Your task to perform on an android device: turn on showing notifications on the lock screen Image 0: 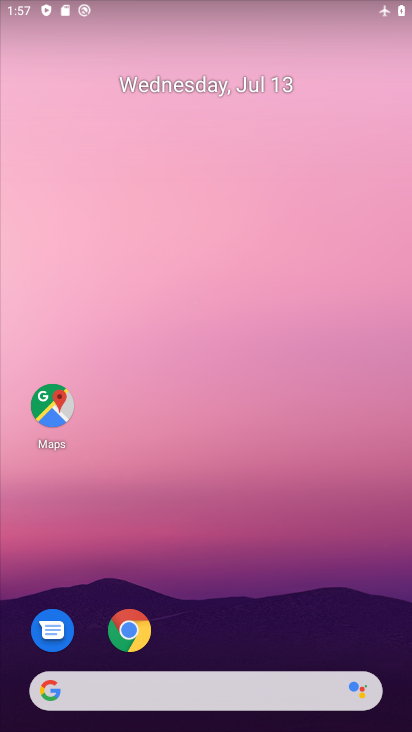
Step 0: drag from (245, 259) to (50, 48)
Your task to perform on an android device: turn on showing notifications on the lock screen Image 1: 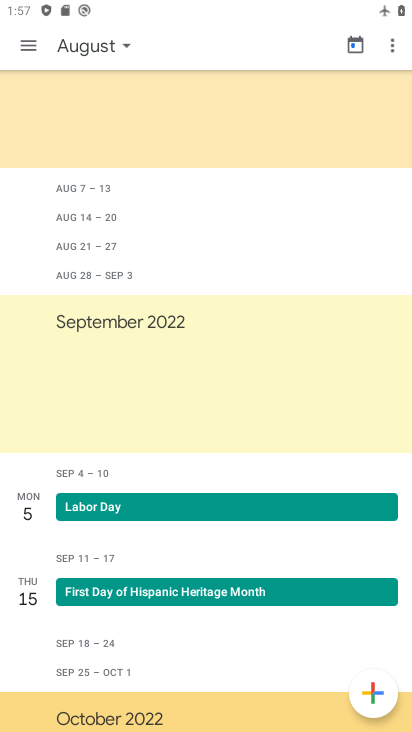
Step 1: press back button
Your task to perform on an android device: turn on showing notifications on the lock screen Image 2: 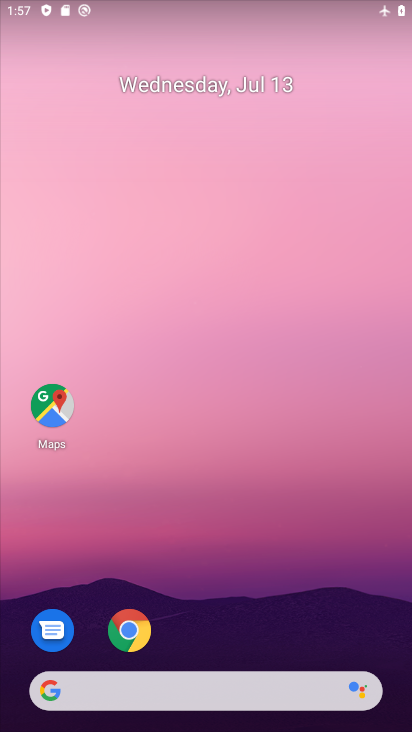
Step 2: drag from (288, 660) to (186, 23)
Your task to perform on an android device: turn on showing notifications on the lock screen Image 3: 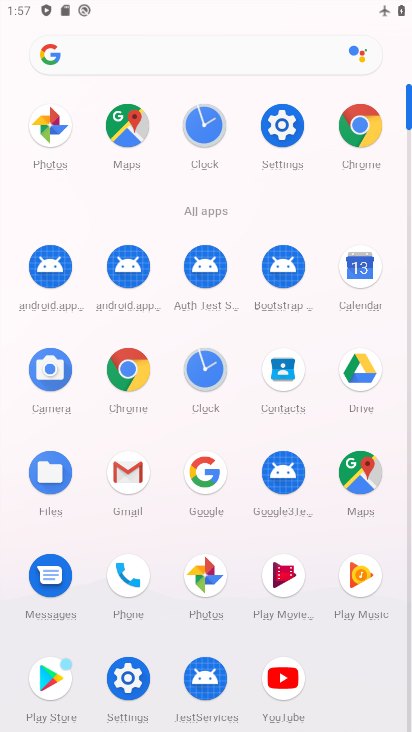
Step 3: drag from (235, 460) to (108, 98)
Your task to perform on an android device: turn on showing notifications on the lock screen Image 4: 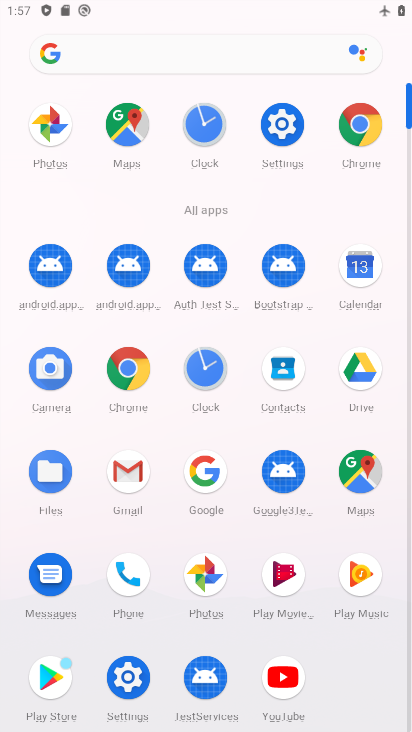
Step 4: click (284, 123)
Your task to perform on an android device: turn on showing notifications on the lock screen Image 5: 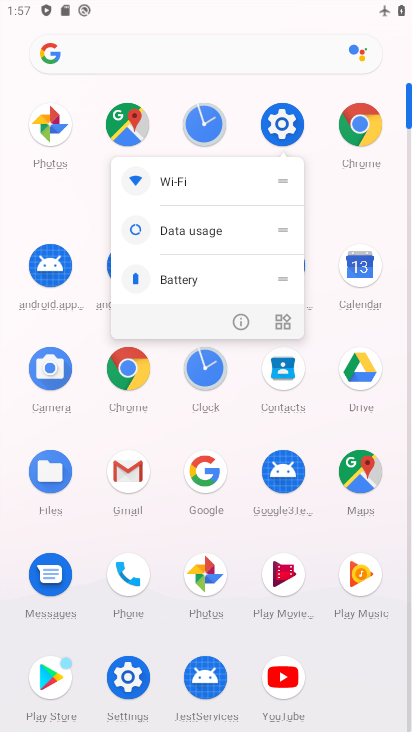
Step 5: click (276, 120)
Your task to perform on an android device: turn on showing notifications on the lock screen Image 6: 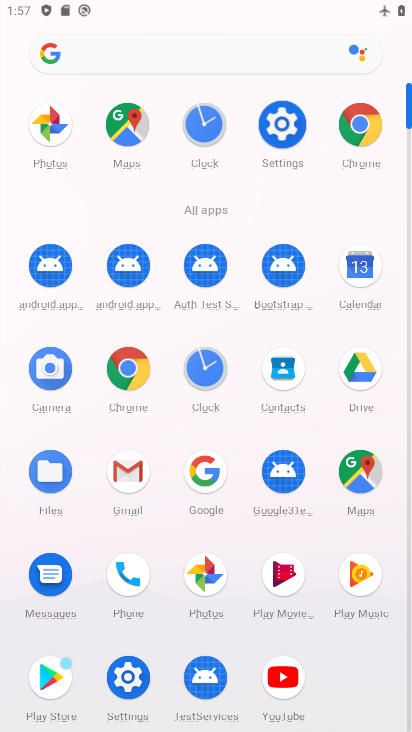
Step 6: click (277, 119)
Your task to perform on an android device: turn on showing notifications on the lock screen Image 7: 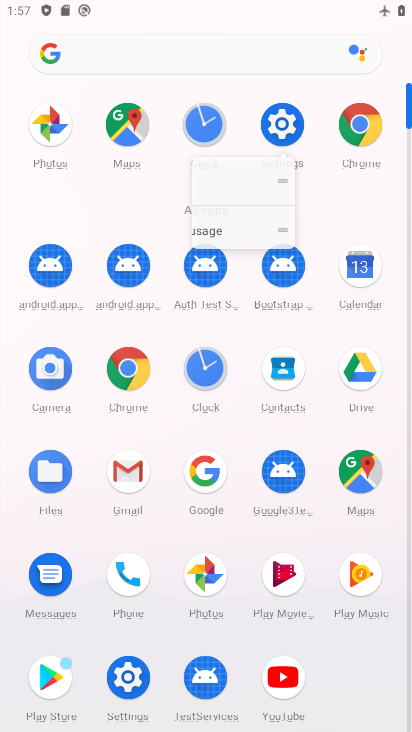
Step 7: click (277, 119)
Your task to perform on an android device: turn on showing notifications on the lock screen Image 8: 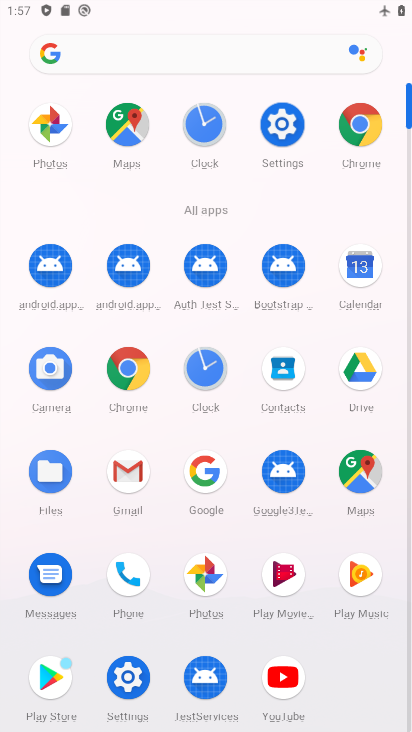
Step 8: click (277, 119)
Your task to perform on an android device: turn on showing notifications on the lock screen Image 9: 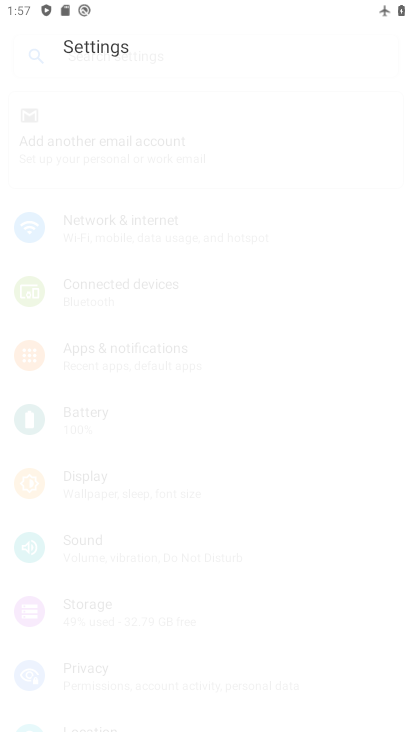
Step 9: click (279, 123)
Your task to perform on an android device: turn on showing notifications on the lock screen Image 10: 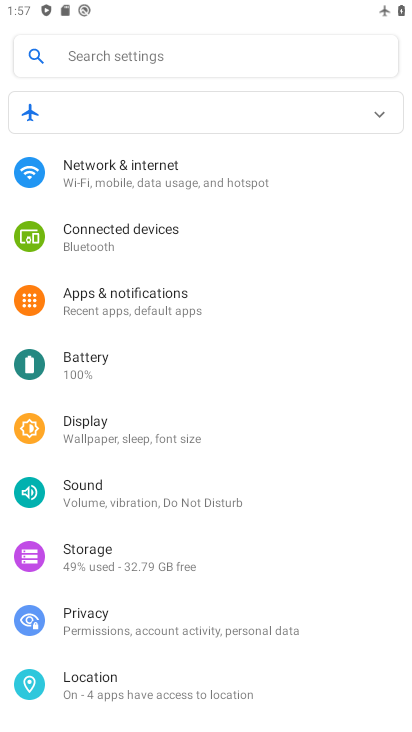
Step 10: click (95, 228)
Your task to perform on an android device: turn on showing notifications on the lock screen Image 11: 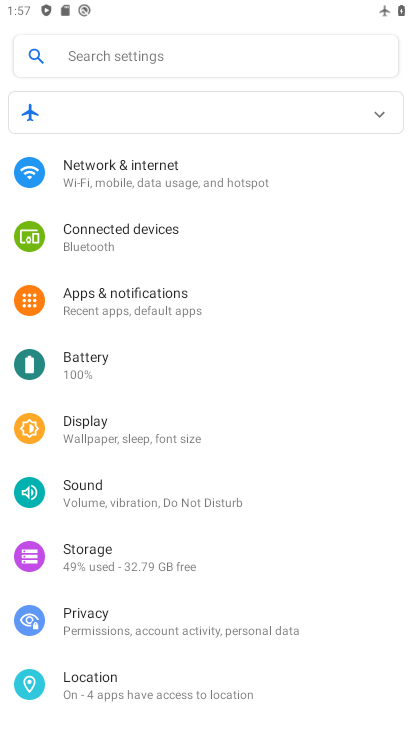
Step 11: click (95, 227)
Your task to perform on an android device: turn on showing notifications on the lock screen Image 12: 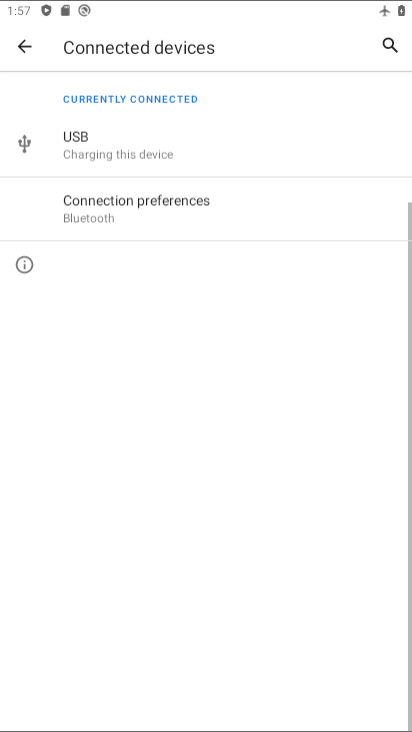
Step 12: click (95, 227)
Your task to perform on an android device: turn on showing notifications on the lock screen Image 13: 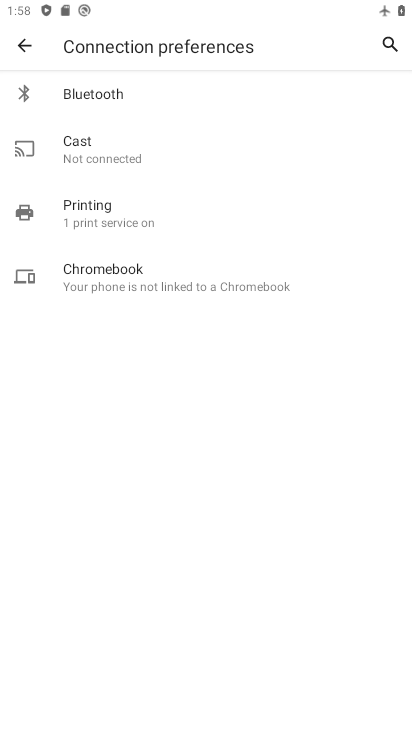
Step 13: click (20, 36)
Your task to perform on an android device: turn on showing notifications on the lock screen Image 14: 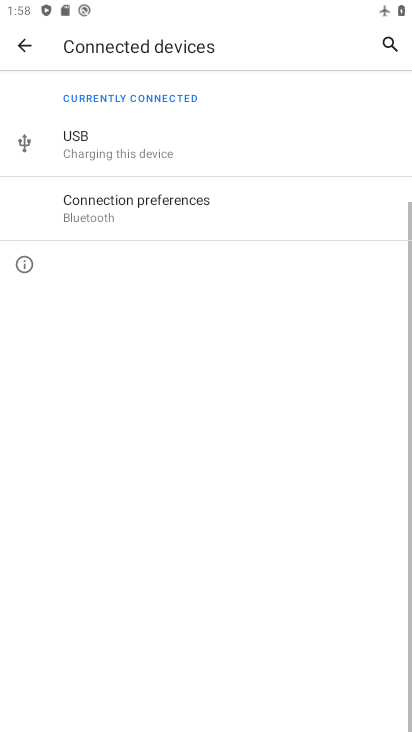
Step 14: click (22, 38)
Your task to perform on an android device: turn on showing notifications on the lock screen Image 15: 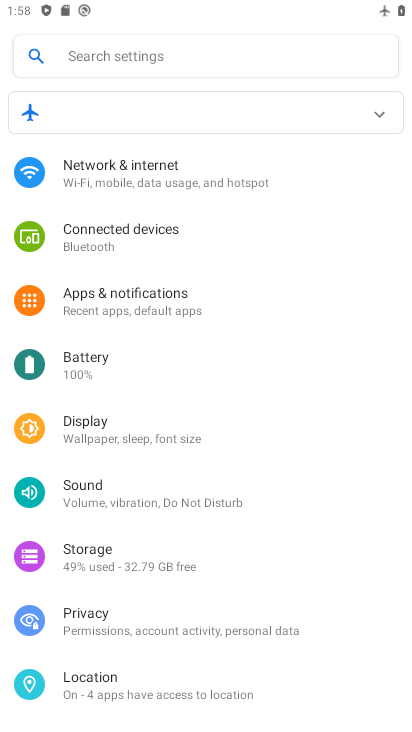
Step 15: click (100, 303)
Your task to perform on an android device: turn on showing notifications on the lock screen Image 16: 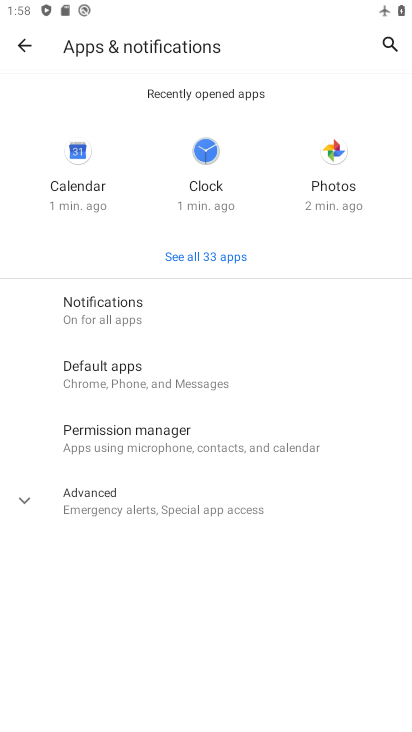
Step 16: click (106, 303)
Your task to perform on an android device: turn on showing notifications on the lock screen Image 17: 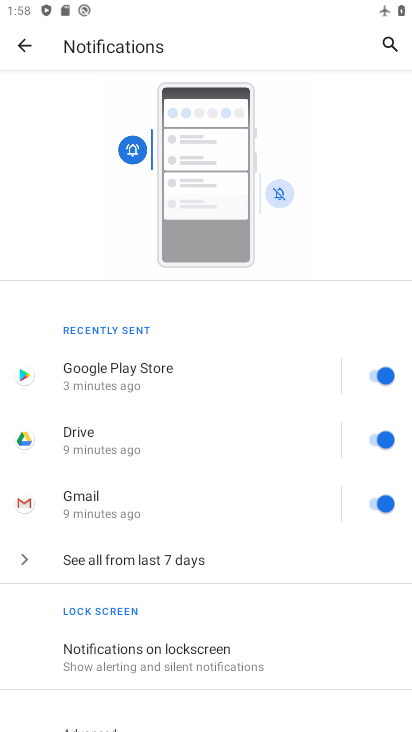
Step 17: click (138, 655)
Your task to perform on an android device: turn on showing notifications on the lock screen Image 18: 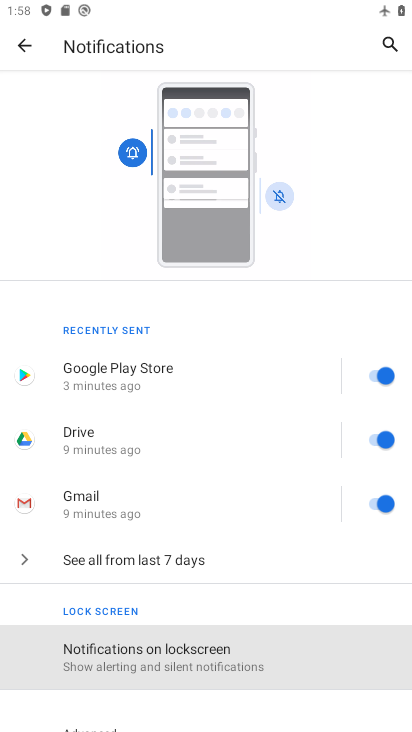
Step 18: click (138, 655)
Your task to perform on an android device: turn on showing notifications on the lock screen Image 19: 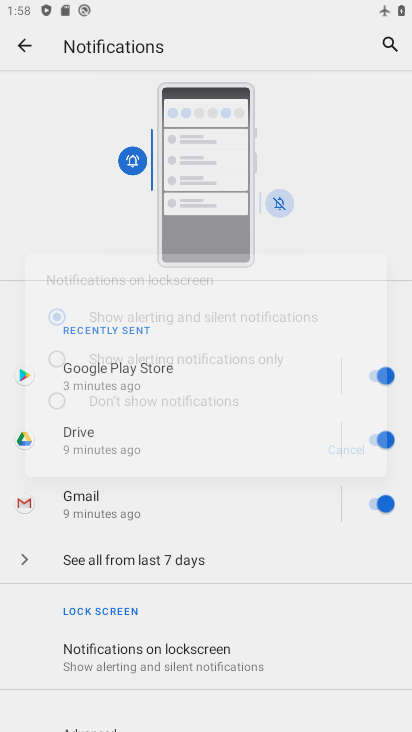
Step 19: click (138, 655)
Your task to perform on an android device: turn on showing notifications on the lock screen Image 20: 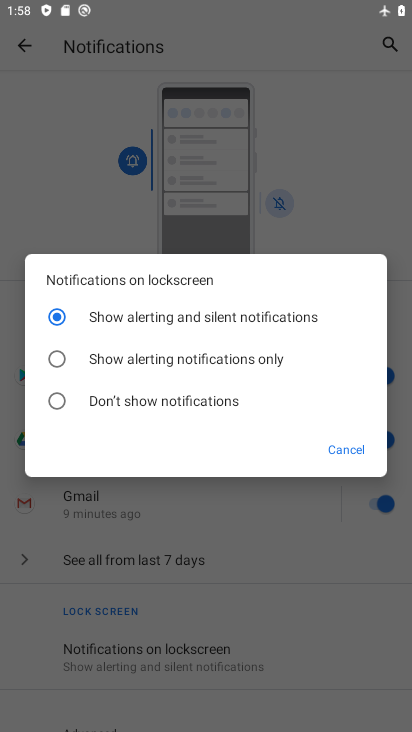
Step 20: click (138, 655)
Your task to perform on an android device: turn on showing notifications on the lock screen Image 21: 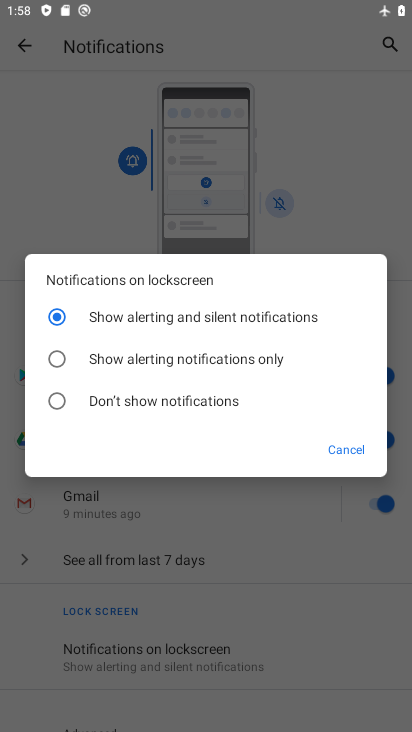
Step 21: task complete